Your task to perform on an android device: change the clock display to show seconds Image 0: 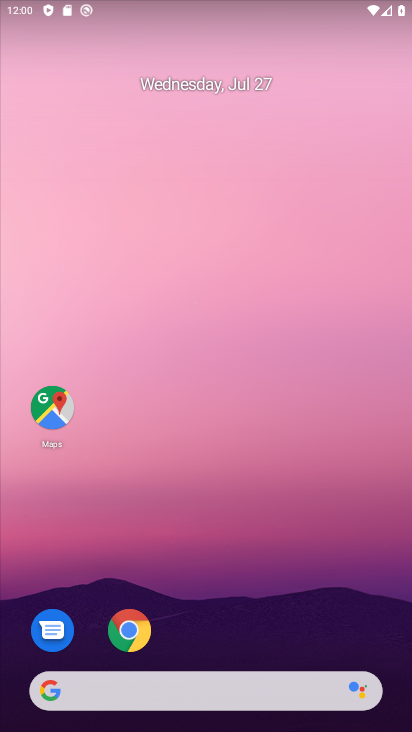
Step 0: drag from (278, 616) to (278, 16)
Your task to perform on an android device: change the clock display to show seconds Image 1: 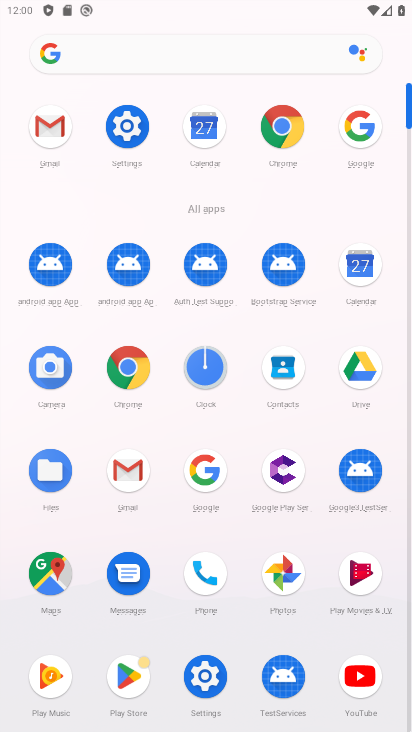
Step 1: click (202, 375)
Your task to perform on an android device: change the clock display to show seconds Image 2: 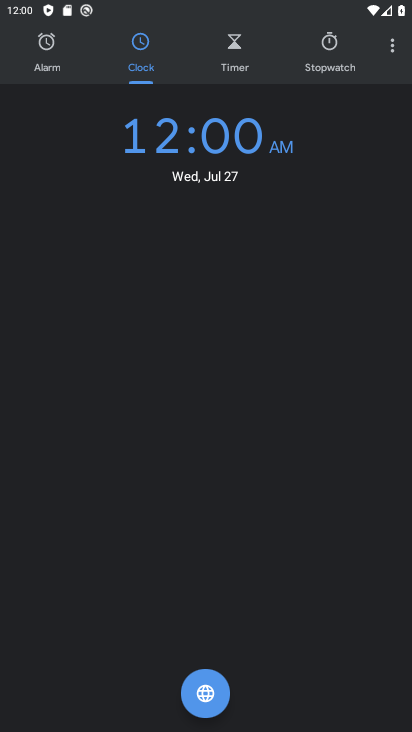
Step 2: click (391, 43)
Your task to perform on an android device: change the clock display to show seconds Image 3: 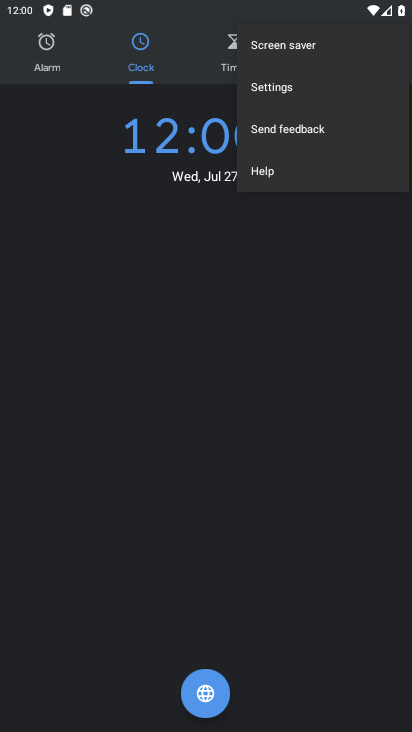
Step 3: click (290, 97)
Your task to perform on an android device: change the clock display to show seconds Image 4: 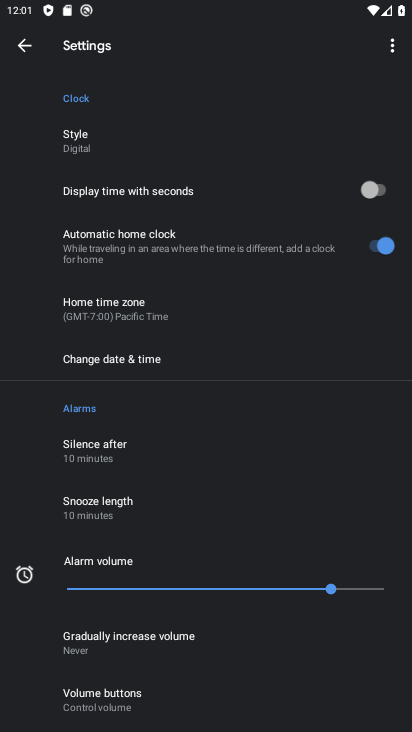
Step 4: click (358, 177)
Your task to perform on an android device: change the clock display to show seconds Image 5: 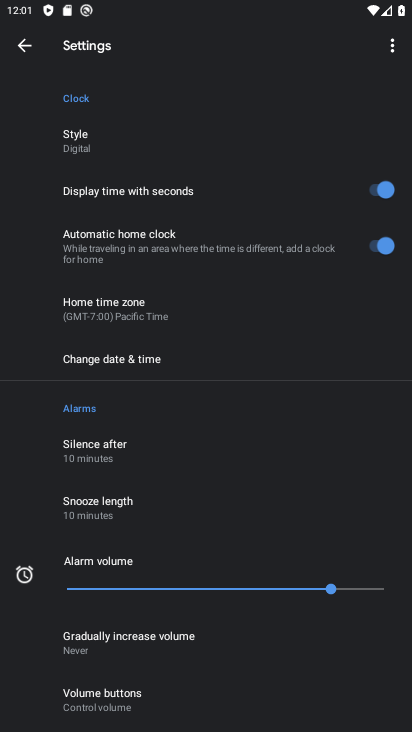
Step 5: task complete